Your task to perform on an android device: Go to Maps Image 0: 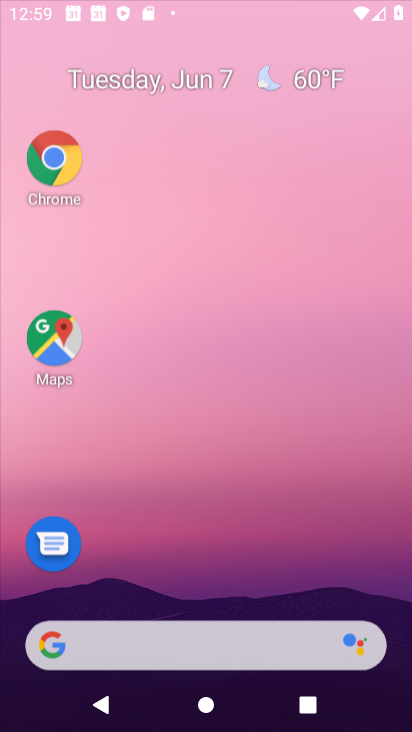
Step 0: click (10, 173)
Your task to perform on an android device: Go to Maps Image 1: 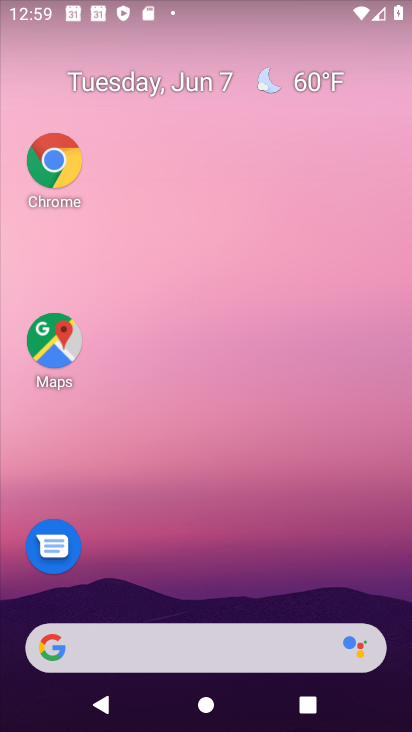
Step 1: drag from (287, 566) to (396, 120)
Your task to perform on an android device: Go to Maps Image 2: 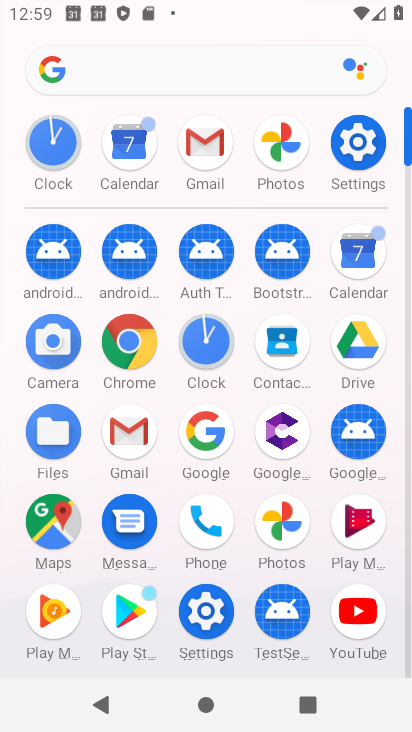
Step 2: click (22, 522)
Your task to perform on an android device: Go to Maps Image 3: 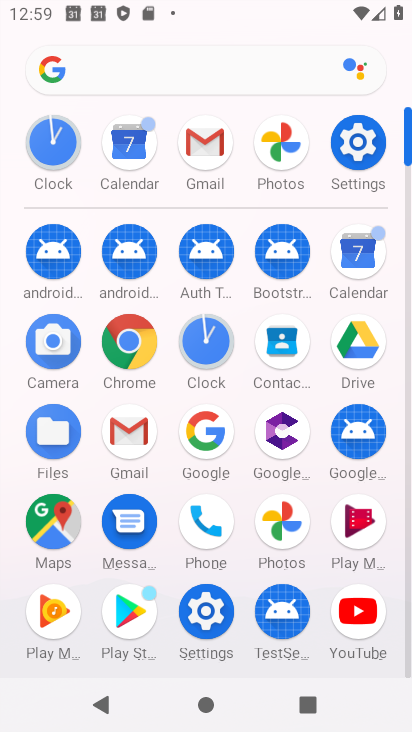
Step 3: click (32, 525)
Your task to perform on an android device: Go to Maps Image 4: 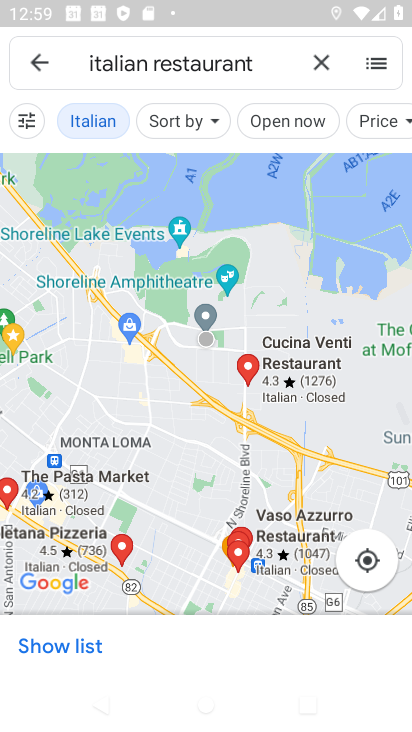
Step 4: task complete